Your task to perform on an android device: refresh tabs in the chrome app Image 0: 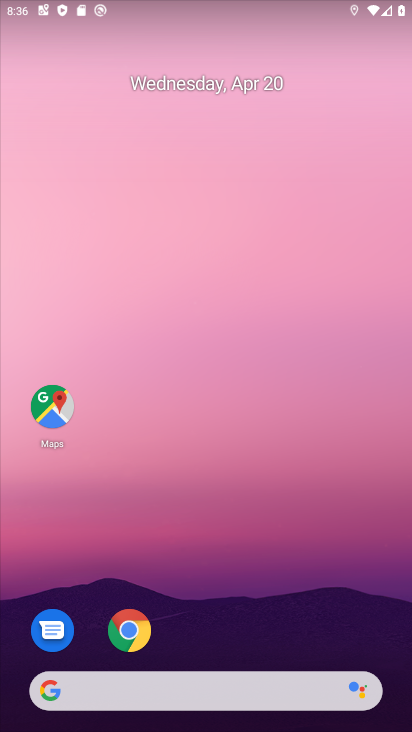
Step 0: click (128, 636)
Your task to perform on an android device: refresh tabs in the chrome app Image 1: 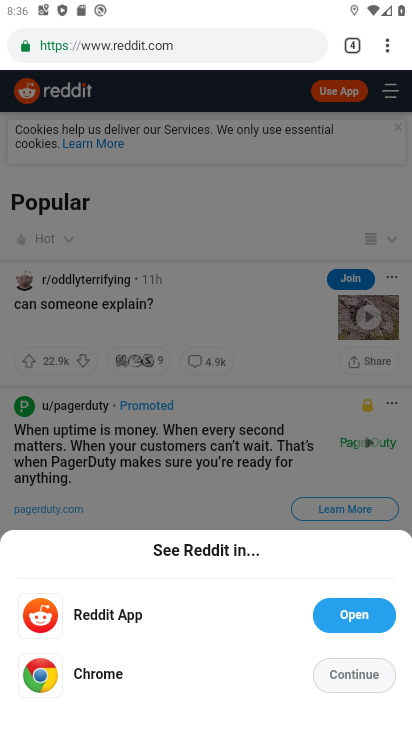
Step 1: click (391, 49)
Your task to perform on an android device: refresh tabs in the chrome app Image 2: 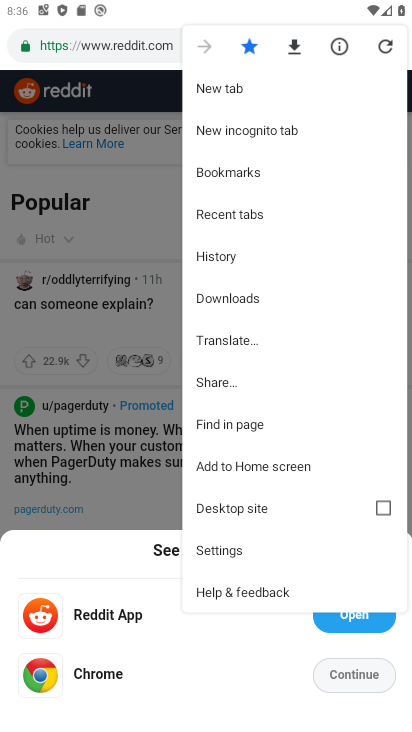
Step 2: click (376, 47)
Your task to perform on an android device: refresh tabs in the chrome app Image 3: 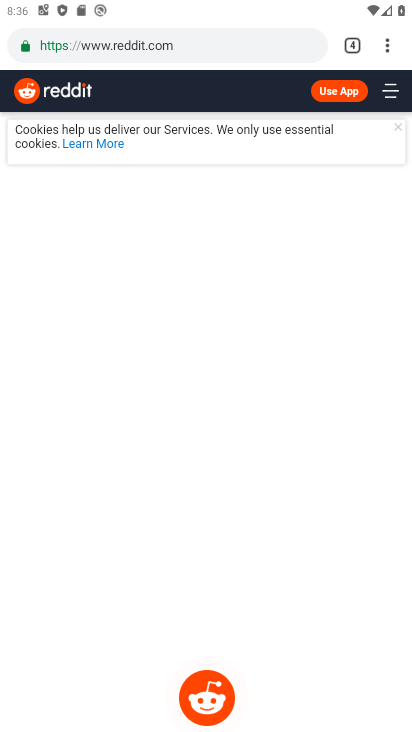
Step 3: task complete